Your task to perform on an android device: Open location settings Image 0: 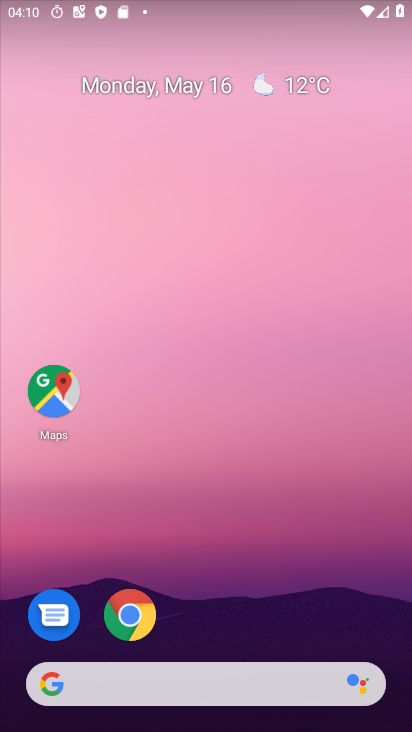
Step 0: click (112, 67)
Your task to perform on an android device: Open location settings Image 1: 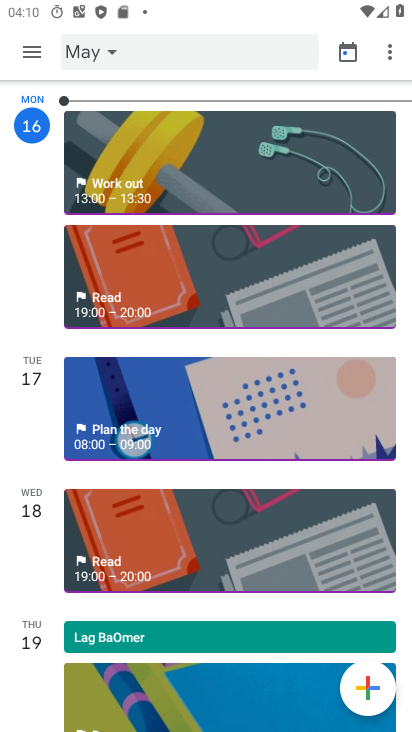
Step 1: drag from (271, 664) to (110, 2)
Your task to perform on an android device: Open location settings Image 2: 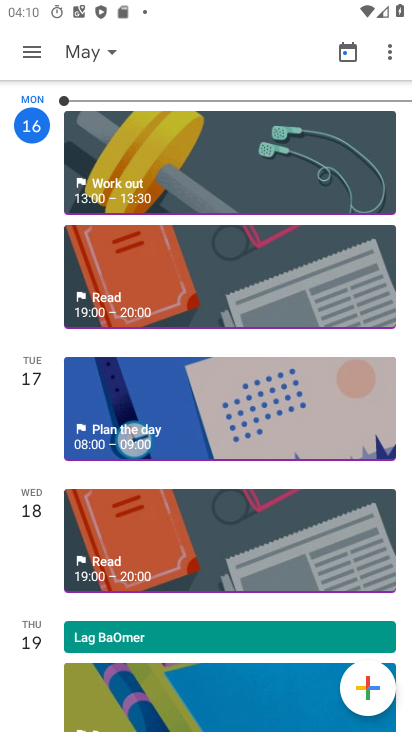
Step 2: press back button
Your task to perform on an android device: Open location settings Image 3: 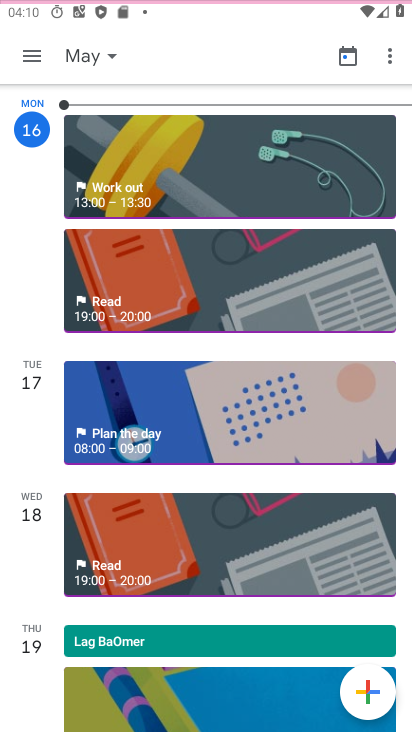
Step 3: press back button
Your task to perform on an android device: Open location settings Image 4: 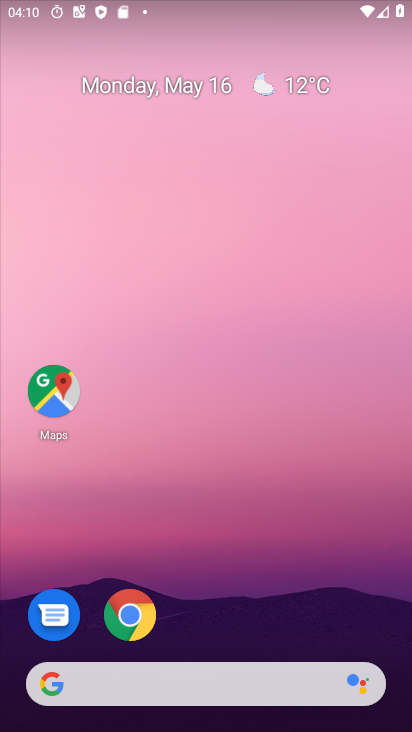
Step 4: click (184, 284)
Your task to perform on an android device: Open location settings Image 5: 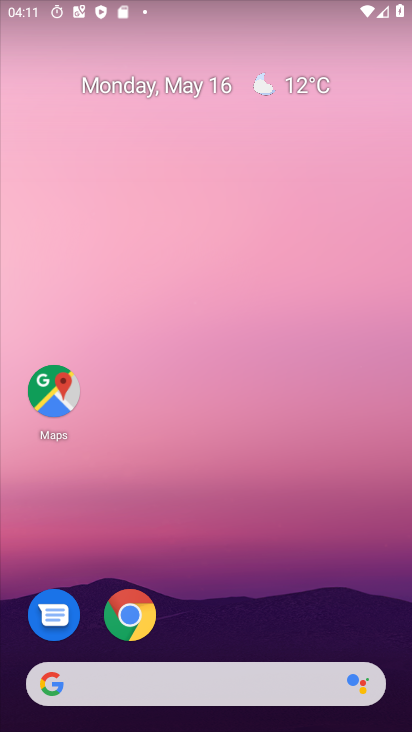
Step 5: drag from (229, 565) to (58, 10)
Your task to perform on an android device: Open location settings Image 6: 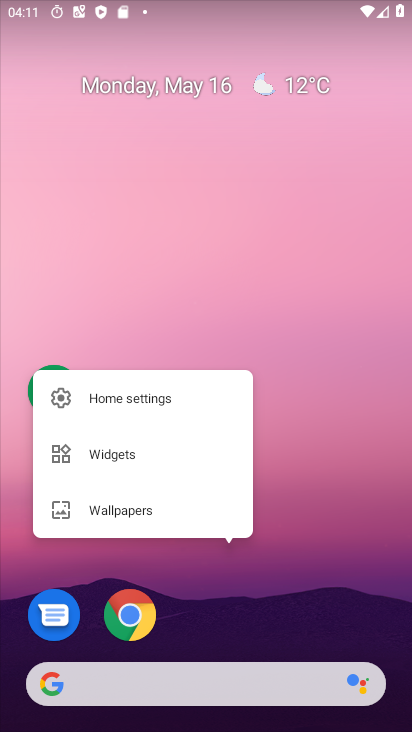
Step 6: click (129, 283)
Your task to perform on an android device: Open location settings Image 7: 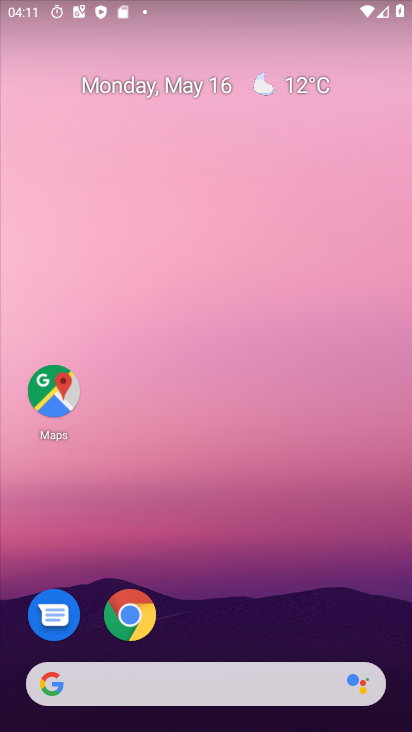
Step 7: click (138, 17)
Your task to perform on an android device: Open location settings Image 8: 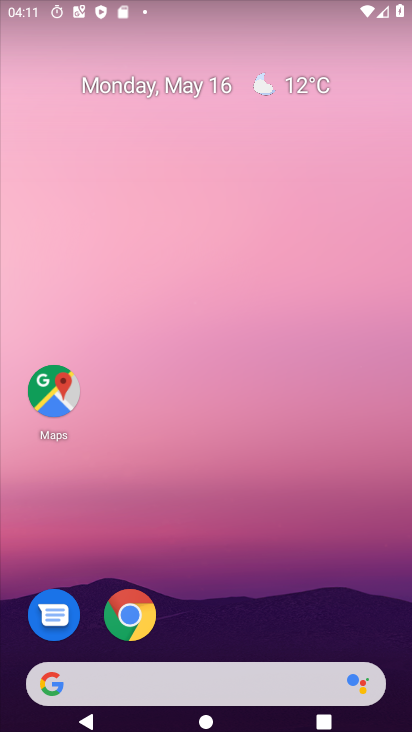
Step 8: drag from (190, 339) to (125, 43)
Your task to perform on an android device: Open location settings Image 9: 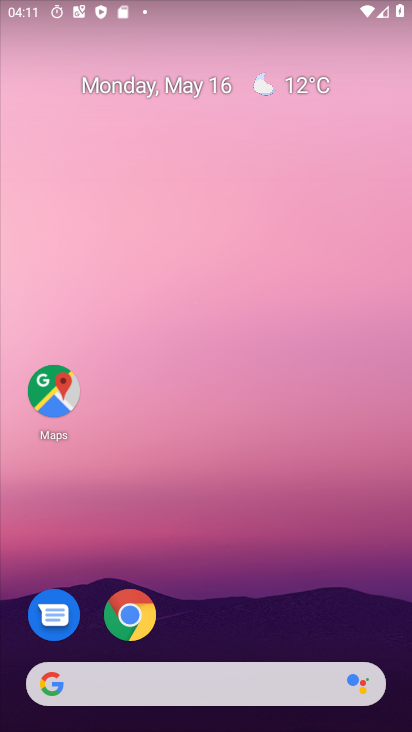
Step 9: drag from (163, 468) to (100, 23)
Your task to perform on an android device: Open location settings Image 10: 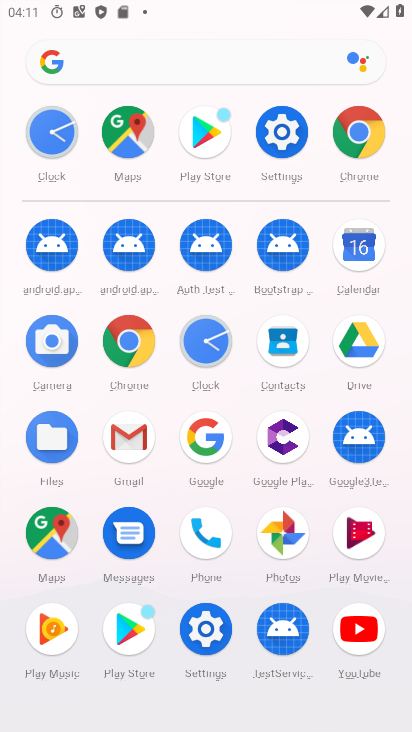
Step 10: drag from (237, 484) to (125, 74)
Your task to perform on an android device: Open location settings Image 11: 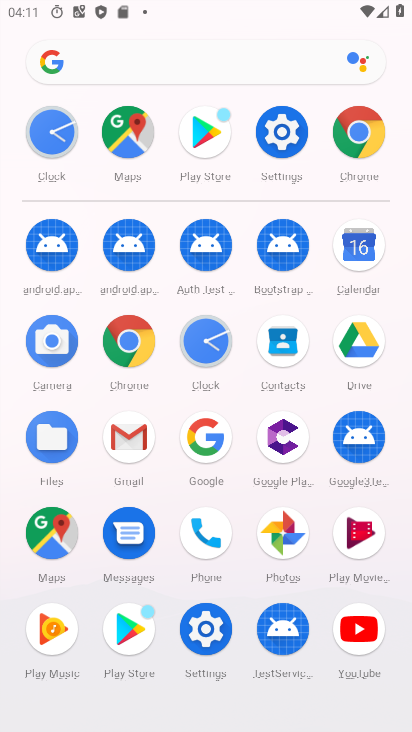
Step 11: click (273, 133)
Your task to perform on an android device: Open location settings Image 12: 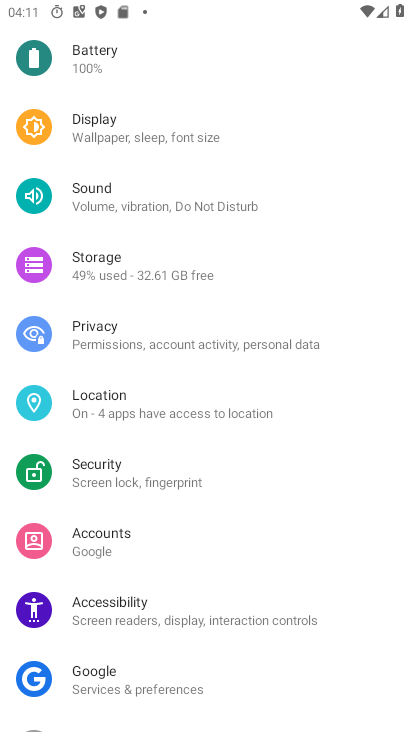
Step 12: click (130, 405)
Your task to perform on an android device: Open location settings Image 13: 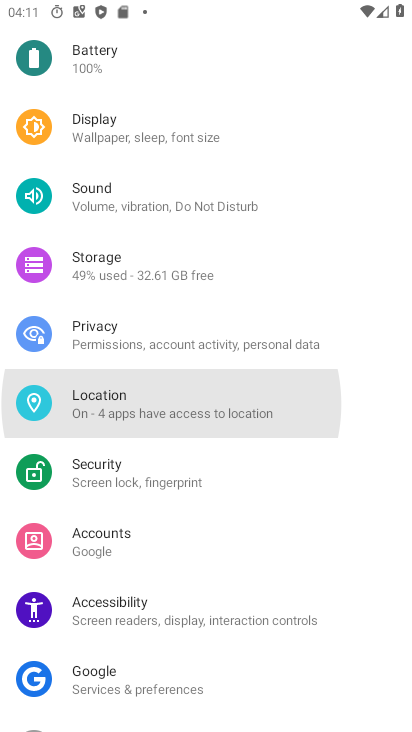
Step 13: click (129, 406)
Your task to perform on an android device: Open location settings Image 14: 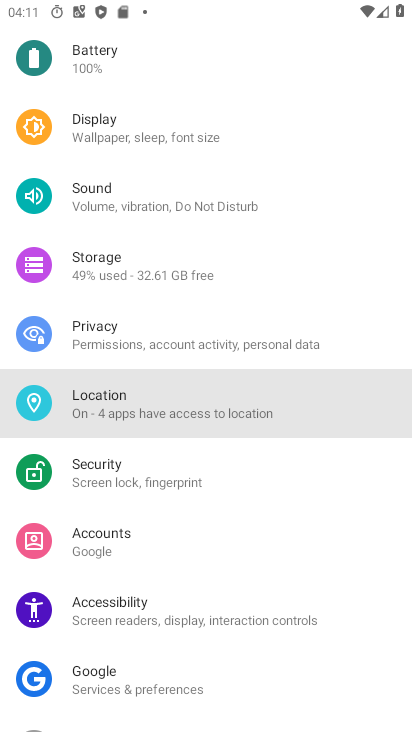
Step 14: click (131, 409)
Your task to perform on an android device: Open location settings Image 15: 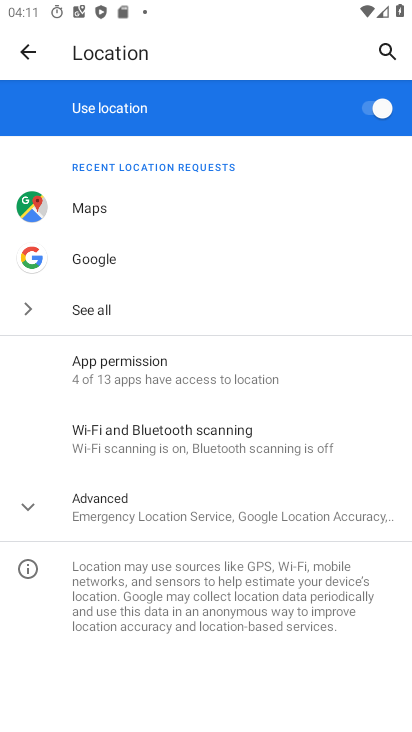
Step 15: task complete